Your task to perform on an android device: install app "Google Chat" Image 0: 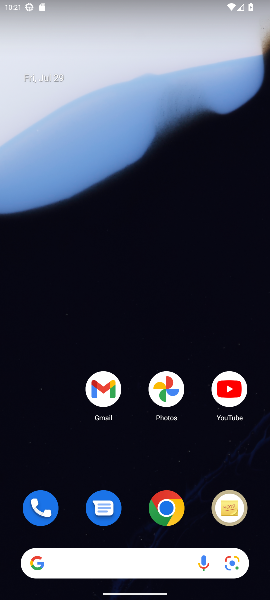
Step 0: drag from (188, 548) to (169, 82)
Your task to perform on an android device: install app "Google Chat" Image 1: 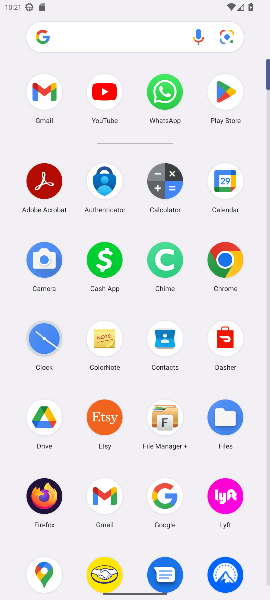
Step 1: click (235, 90)
Your task to perform on an android device: install app "Google Chat" Image 2: 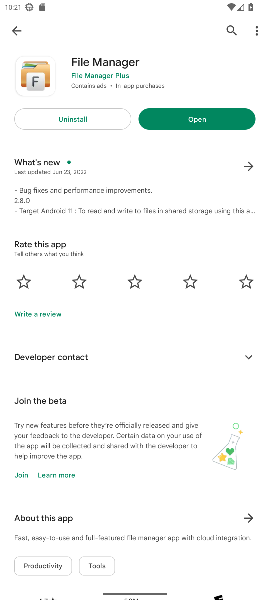
Step 2: click (227, 25)
Your task to perform on an android device: install app "Google Chat" Image 3: 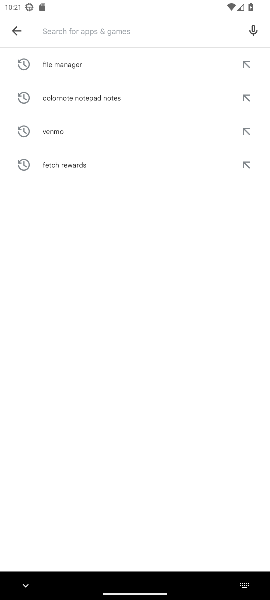
Step 3: type "googlechat"
Your task to perform on an android device: install app "Google Chat" Image 4: 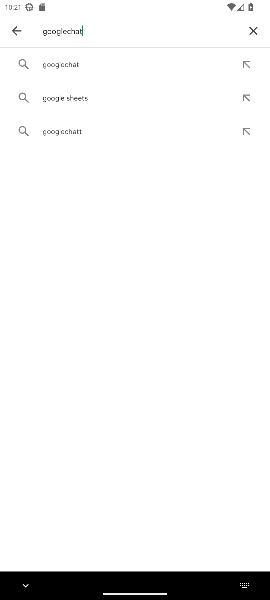
Step 4: click (66, 62)
Your task to perform on an android device: install app "Google Chat" Image 5: 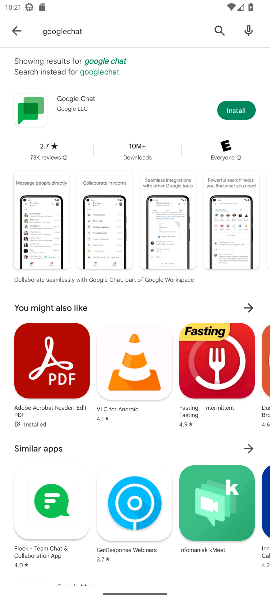
Step 5: click (246, 110)
Your task to perform on an android device: install app "Google Chat" Image 6: 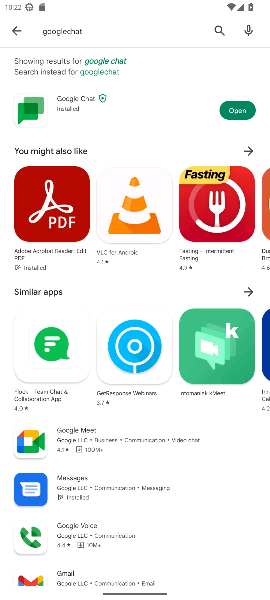
Step 6: task complete